Your task to perform on an android device: Open network settings Image 0: 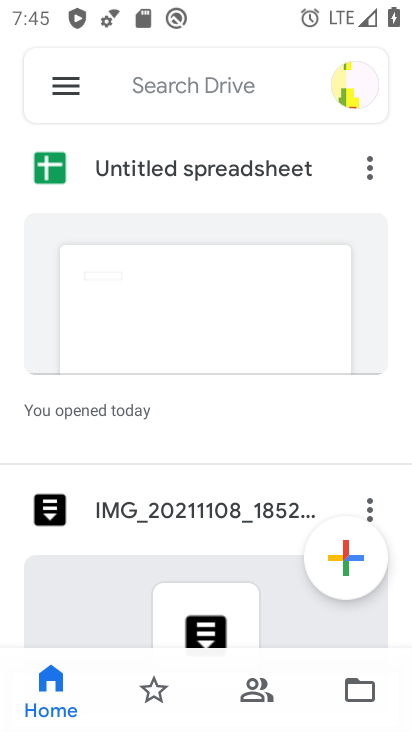
Step 0: press home button
Your task to perform on an android device: Open network settings Image 1: 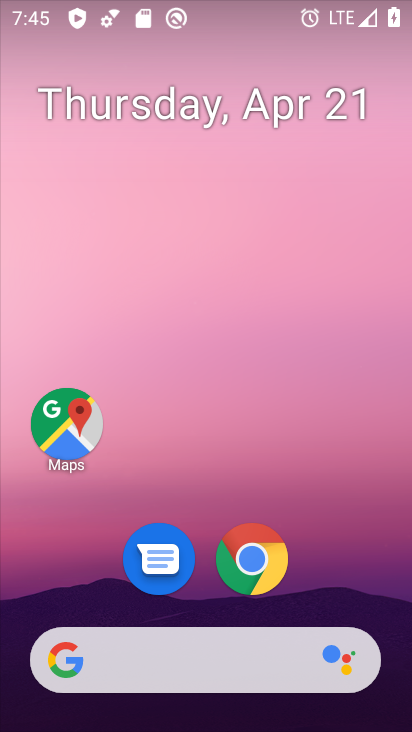
Step 1: drag from (354, 568) to (375, 156)
Your task to perform on an android device: Open network settings Image 2: 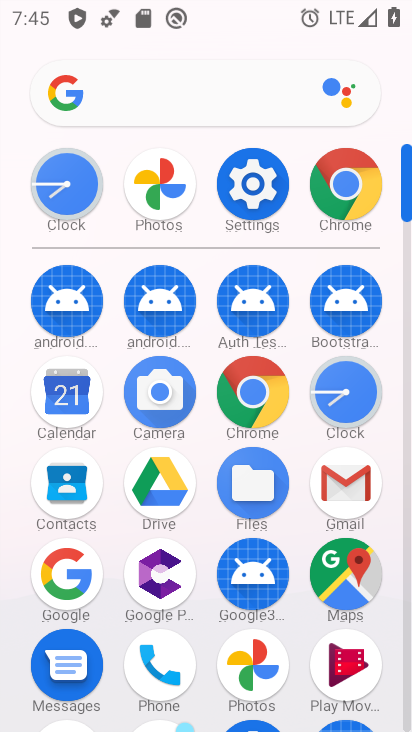
Step 2: click (242, 189)
Your task to perform on an android device: Open network settings Image 3: 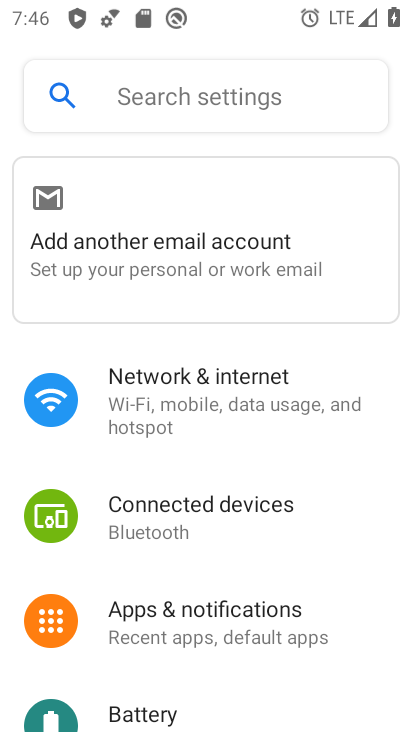
Step 3: click (197, 405)
Your task to perform on an android device: Open network settings Image 4: 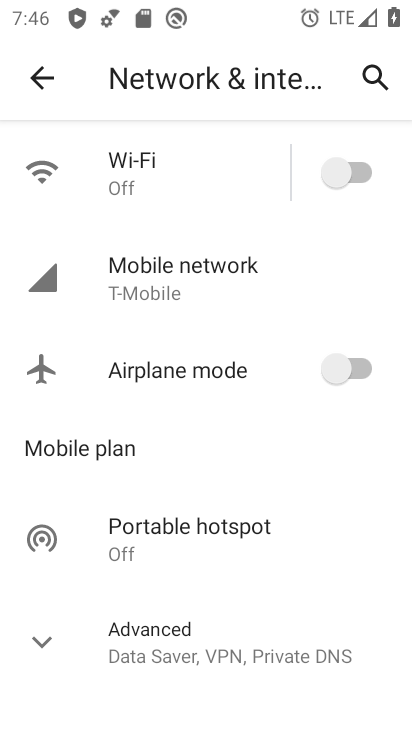
Step 4: click (189, 274)
Your task to perform on an android device: Open network settings Image 5: 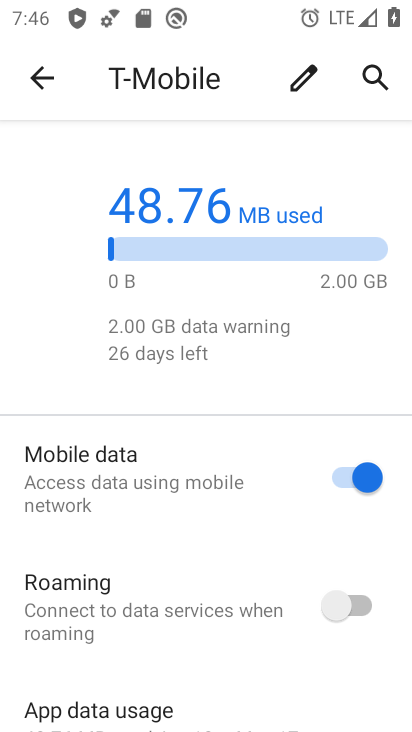
Step 5: task complete